Your task to perform on an android device: What's on my calendar today? Image 0: 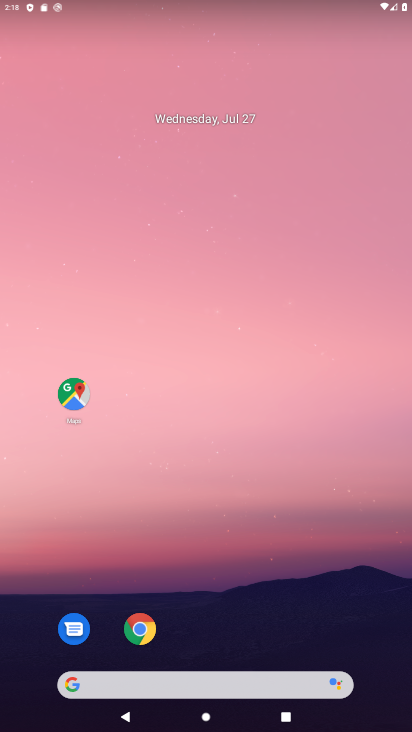
Step 0: click (191, 116)
Your task to perform on an android device: What's on my calendar today? Image 1: 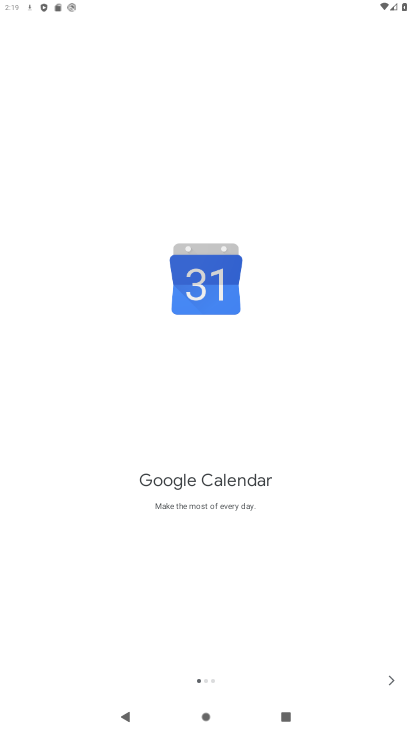
Step 1: click (394, 682)
Your task to perform on an android device: What's on my calendar today? Image 2: 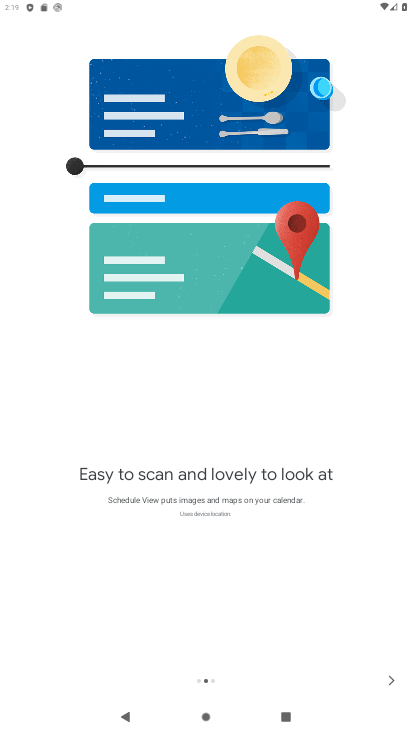
Step 2: click (394, 682)
Your task to perform on an android device: What's on my calendar today? Image 3: 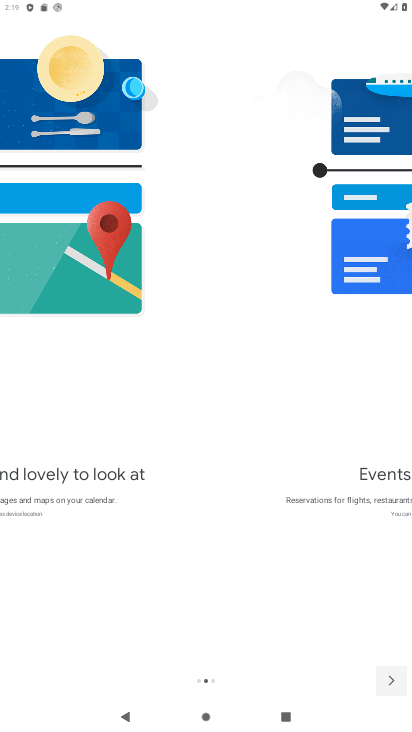
Step 3: click (394, 682)
Your task to perform on an android device: What's on my calendar today? Image 4: 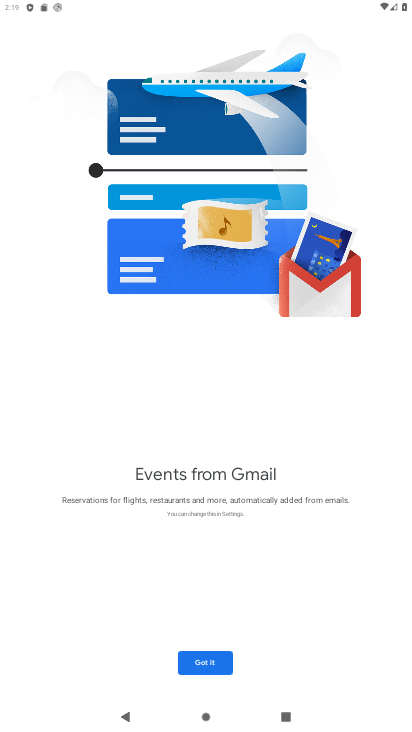
Step 4: click (210, 653)
Your task to perform on an android device: What's on my calendar today? Image 5: 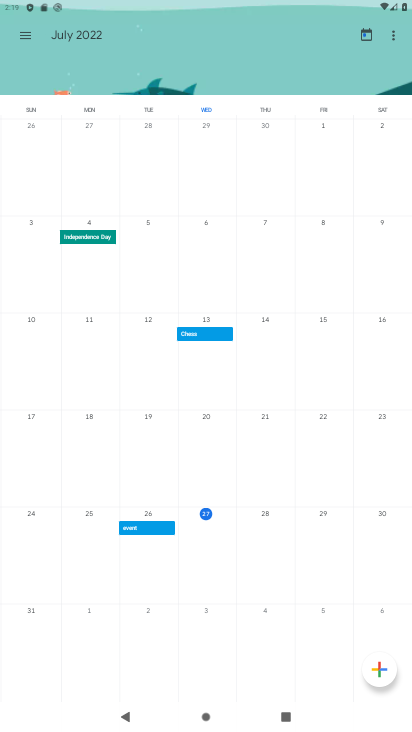
Step 5: task complete